Your task to perform on an android device: move an email to a new category in the gmail app Image 0: 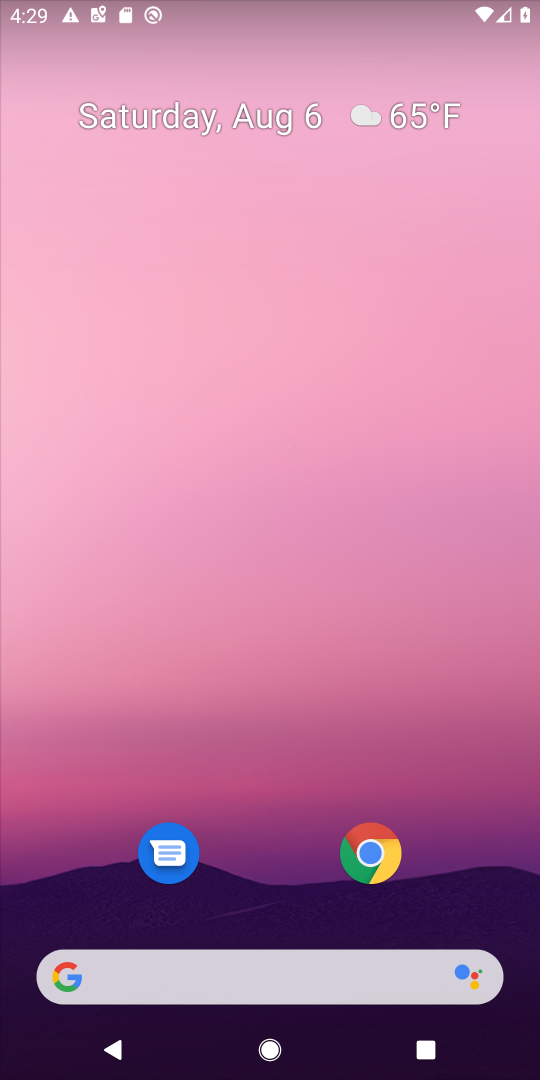
Step 0: drag from (290, 905) to (453, 3)
Your task to perform on an android device: move an email to a new category in the gmail app Image 1: 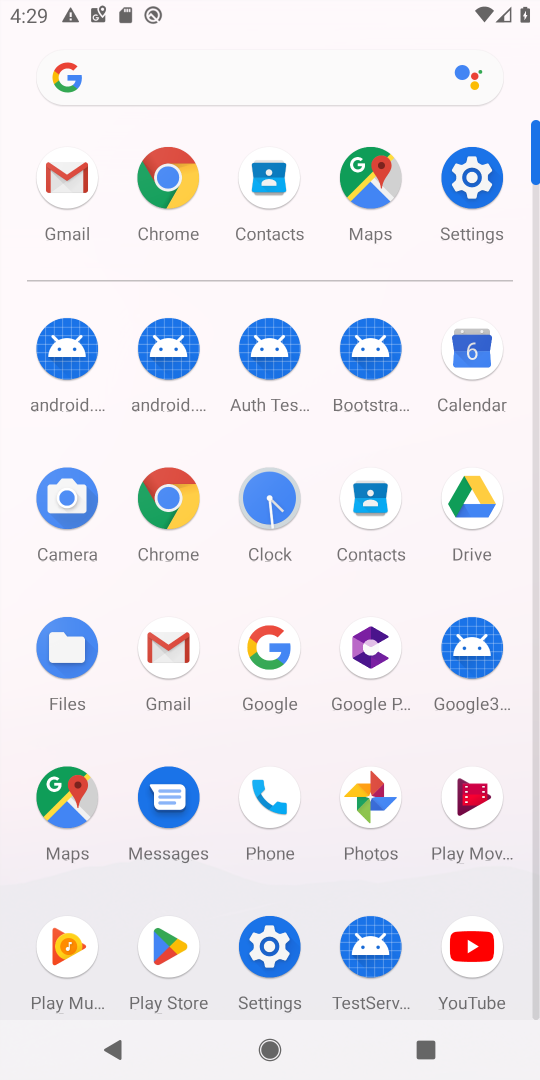
Step 1: click (64, 198)
Your task to perform on an android device: move an email to a new category in the gmail app Image 2: 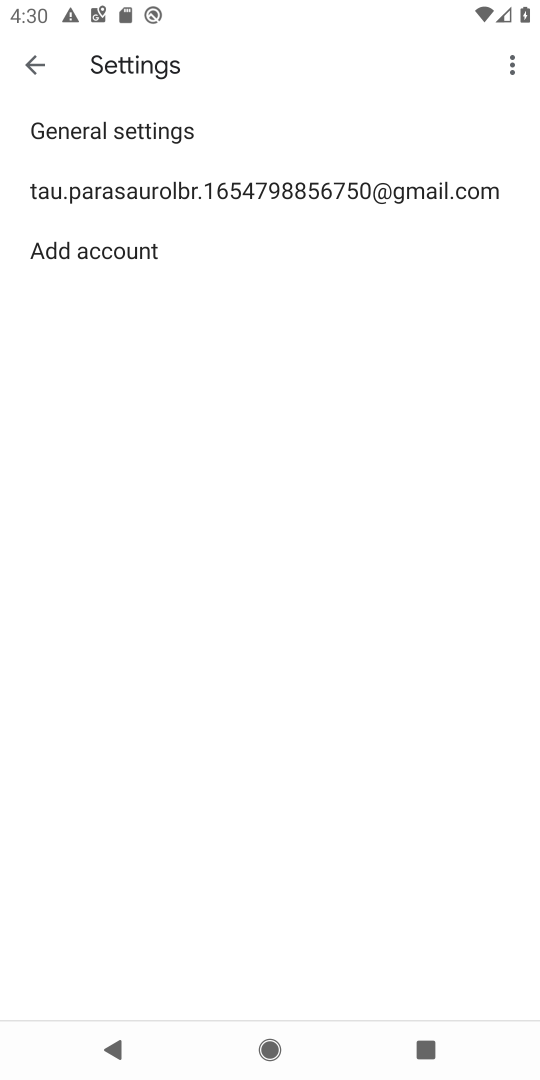
Step 2: click (26, 71)
Your task to perform on an android device: move an email to a new category in the gmail app Image 3: 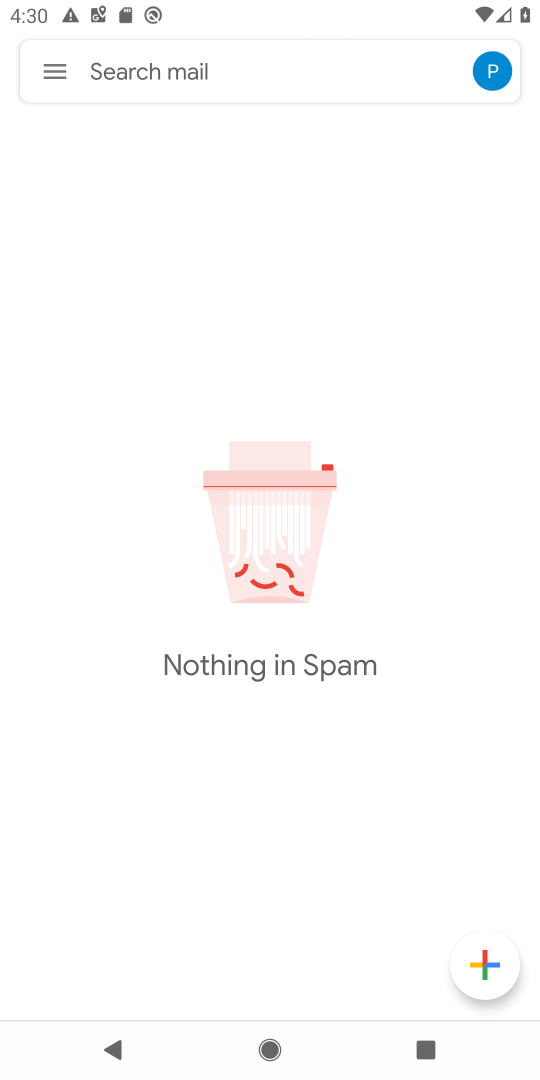
Step 3: click (50, 75)
Your task to perform on an android device: move an email to a new category in the gmail app Image 4: 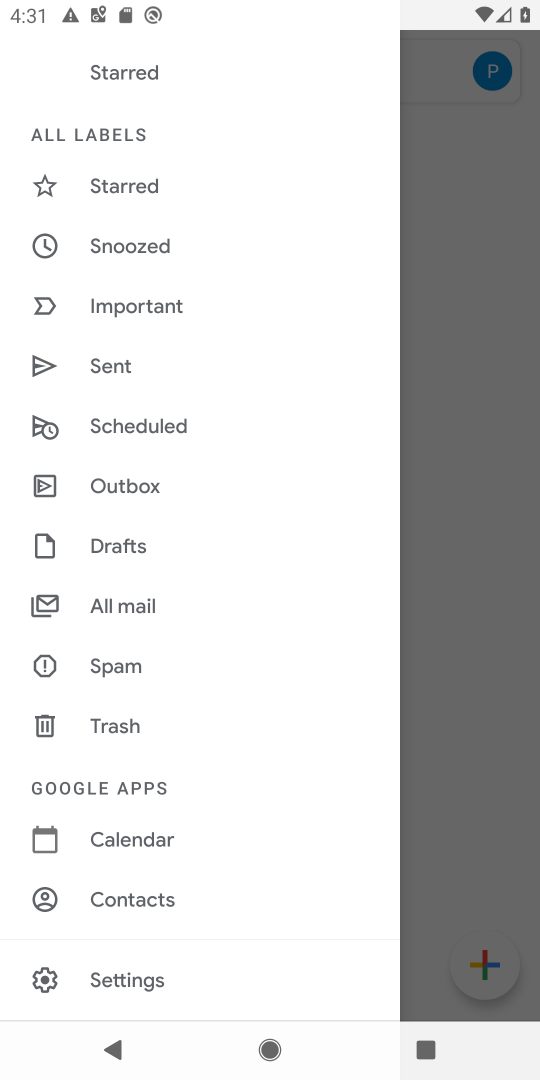
Step 4: click (132, 613)
Your task to perform on an android device: move an email to a new category in the gmail app Image 5: 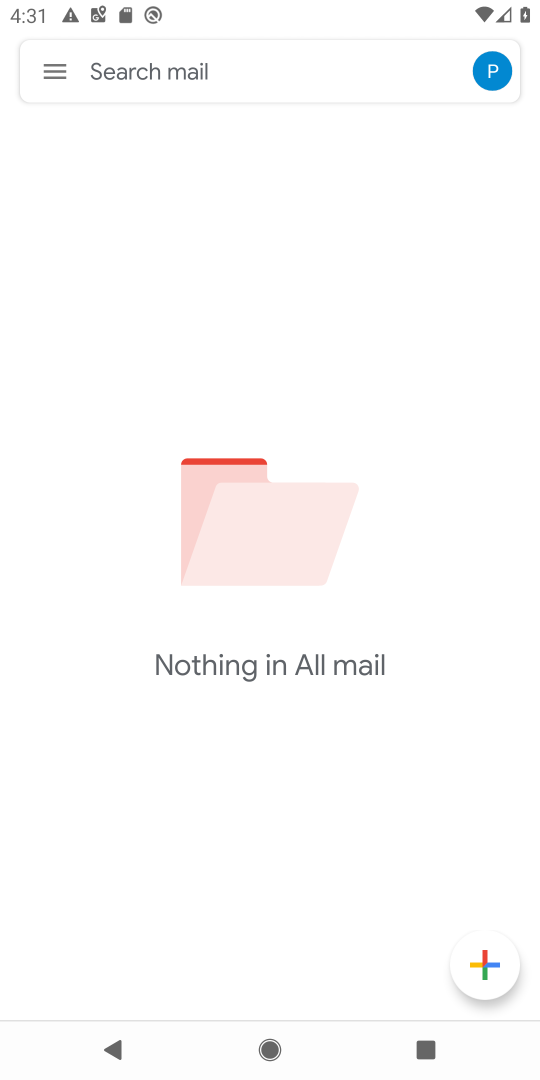
Step 5: task complete